Your task to perform on an android device: Check the news Image 0: 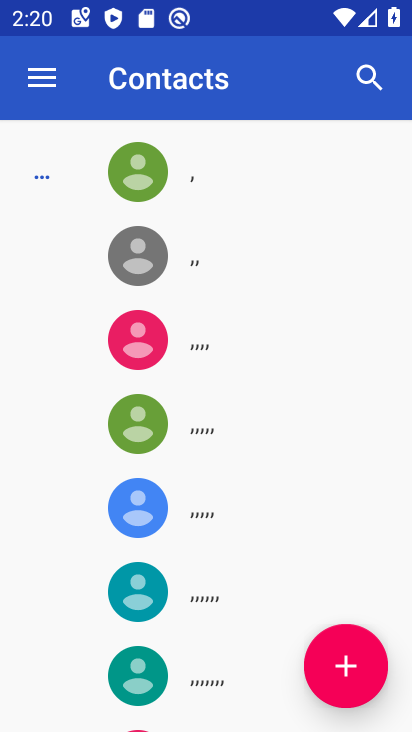
Step 0: press home button
Your task to perform on an android device: Check the news Image 1: 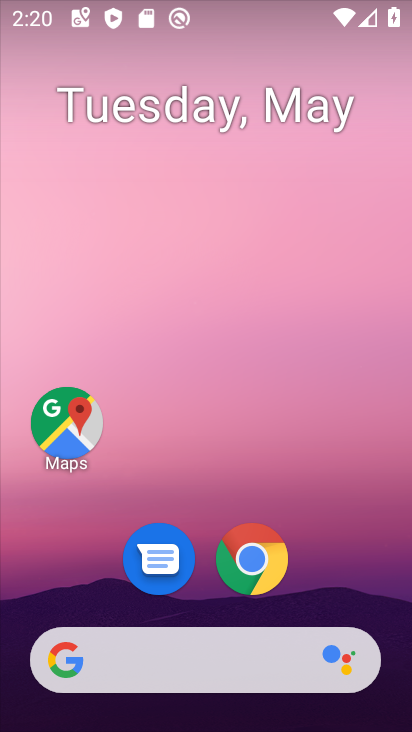
Step 1: click (76, 660)
Your task to perform on an android device: Check the news Image 2: 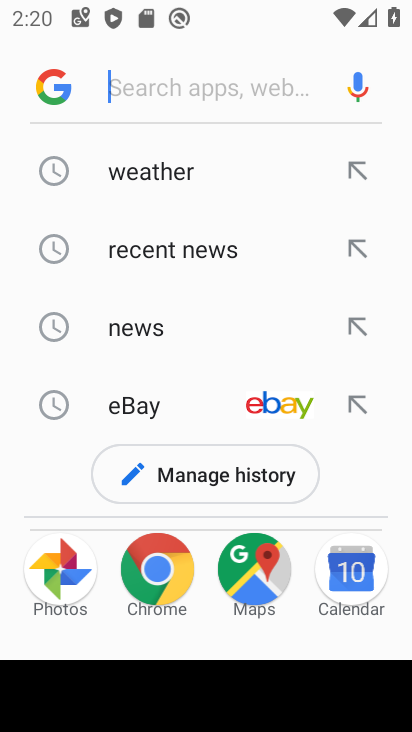
Step 2: click (134, 327)
Your task to perform on an android device: Check the news Image 3: 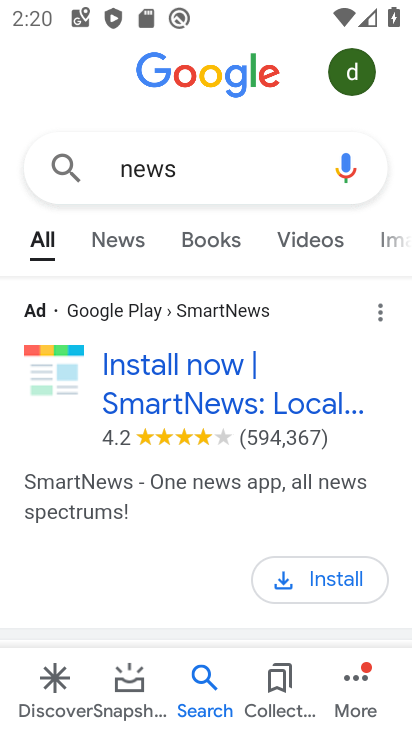
Step 3: click (134, 234)
Your task to perform on an android device: Check the news Image 4: 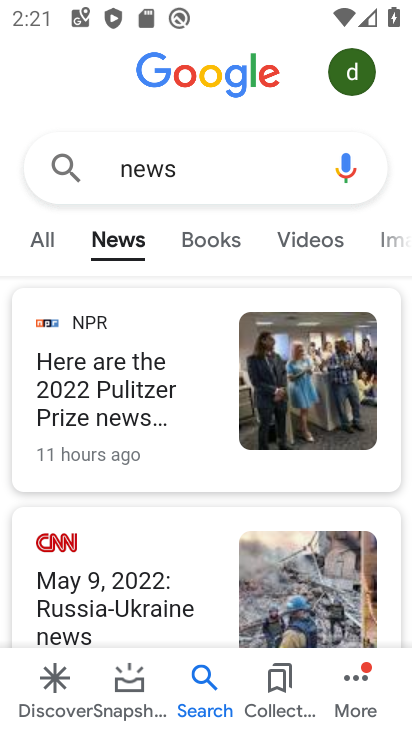
Step 4: task complete